Your task to perform on an android device: Show me the alarms in the clock app Image 0: 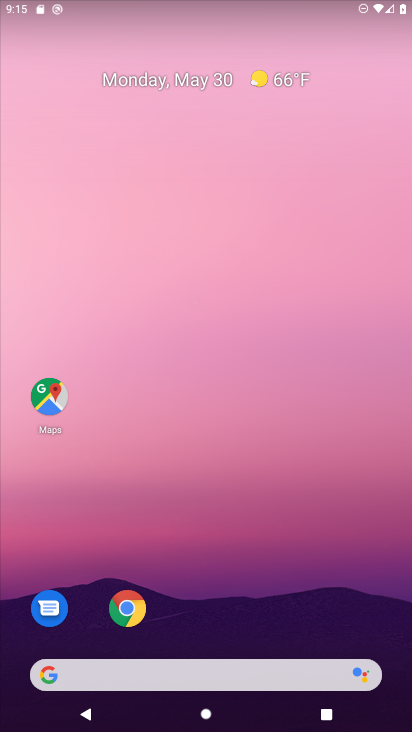
Step 0: drag from (227, 721) to (228, 4)
Your task to perform on an android device: Show me the alarms in the clock app Image 1: 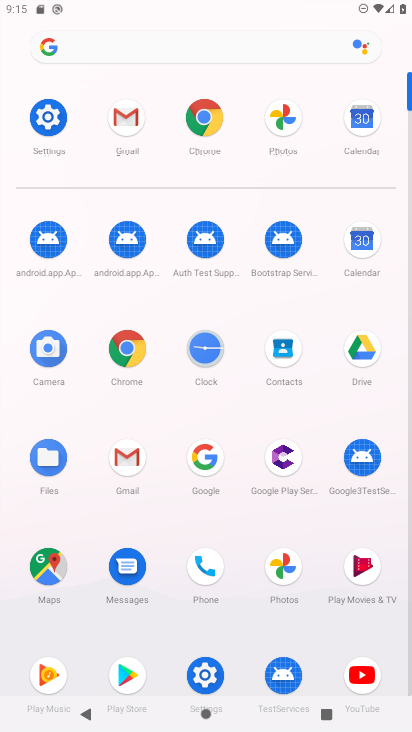
Step 1: click (201, 352)
Your task to perform on an android device: Show me the alarms in the clock app Image 2: 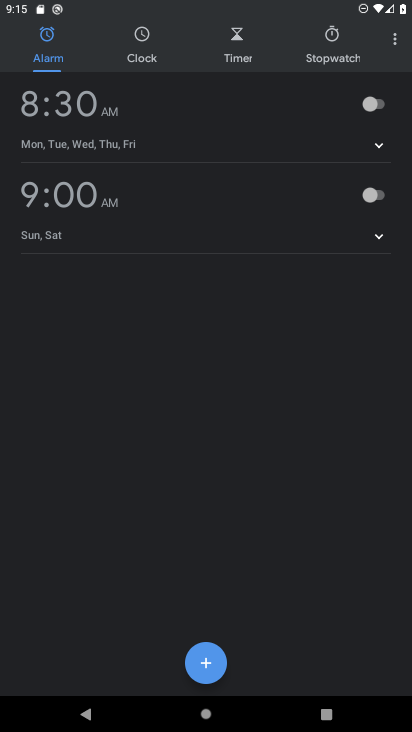
Step 2: task complete